Your task to perform on an android device: open a bookmark in the chrome app Image 0: 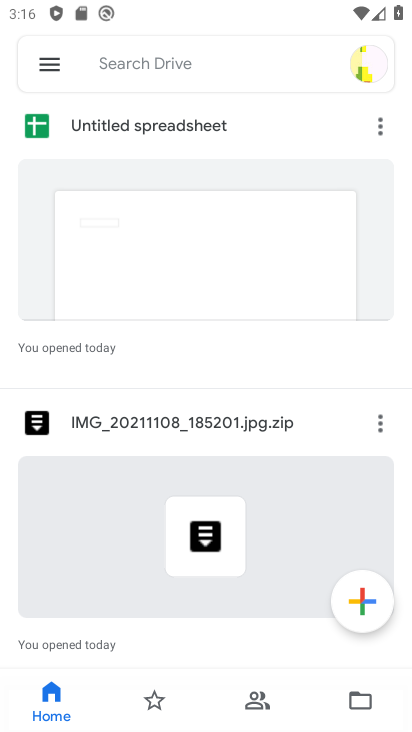
Step 0: press home button
Your task to perform on an android device: open a bookmark in the chrome app Image 1: 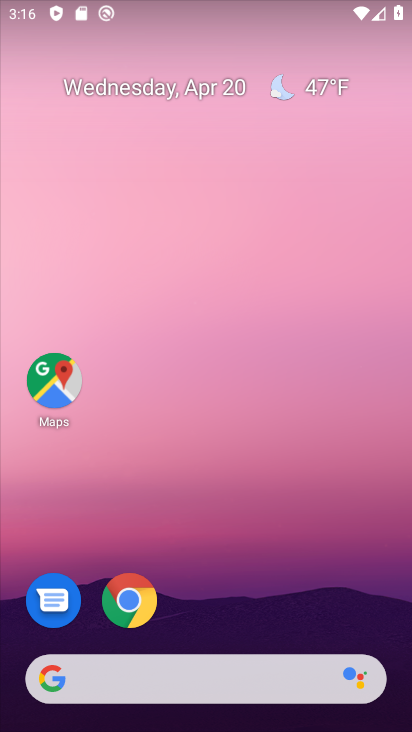
Step 1: drag from (296, 575) to (225, 14)
Your task to perform on an android device: open a bookmark in the chrome app Image 2: 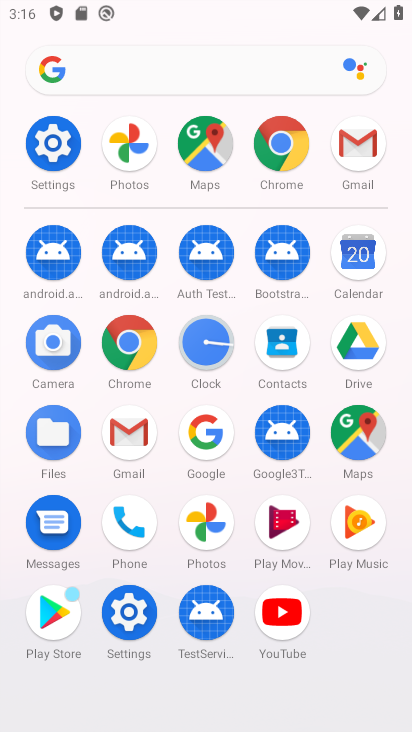
Step 2: click (290, 147)
Your task to perform on an android device: open a bookmark in the chrome app Image 3: 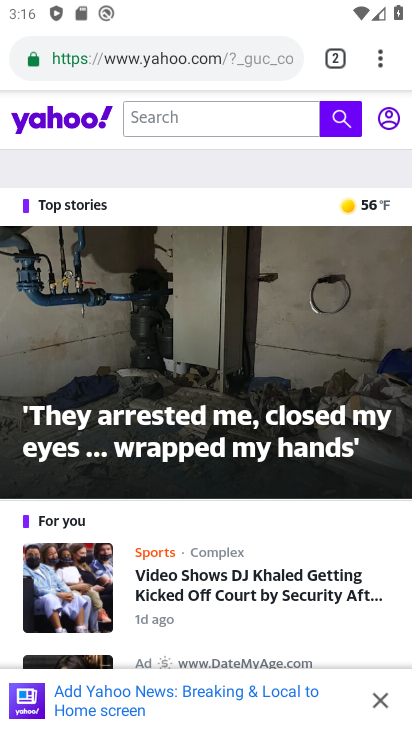
Step 3: drag from (372, 59) to (204, 290)
Your task to perform on an android device: open a bookmark in the chrome app Image 4: 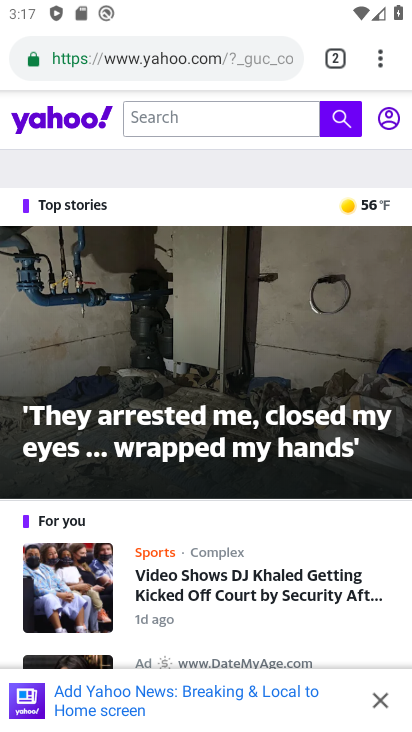
Step 4: click (204, 290)
Your task to perform on an android device: open a bookmark in the chrome app Image 5: 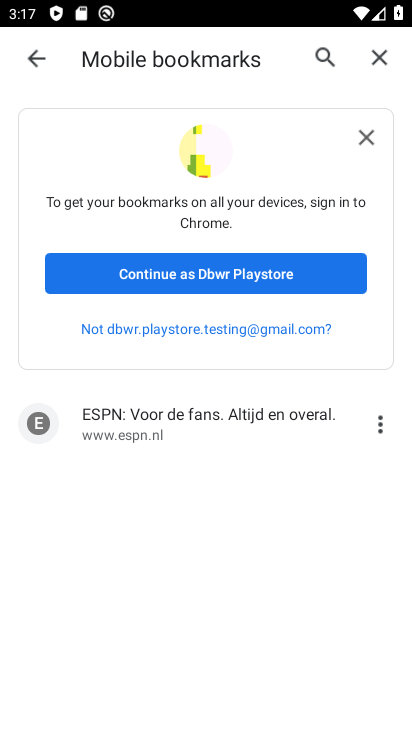
Step 5: task complete